Your task to perform on an android device: toggle show notifications on the lock screen Image 0: 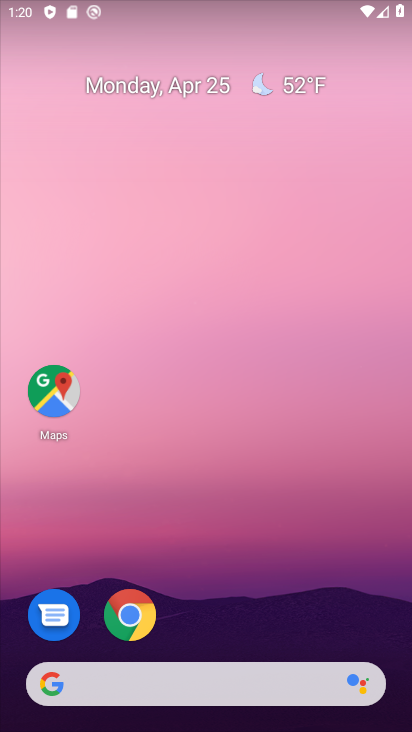
Step 0: drag from (233, 565) to (199, 38)
Your task to perform on an android device: toggle show notifications on the lock screen Image 1: 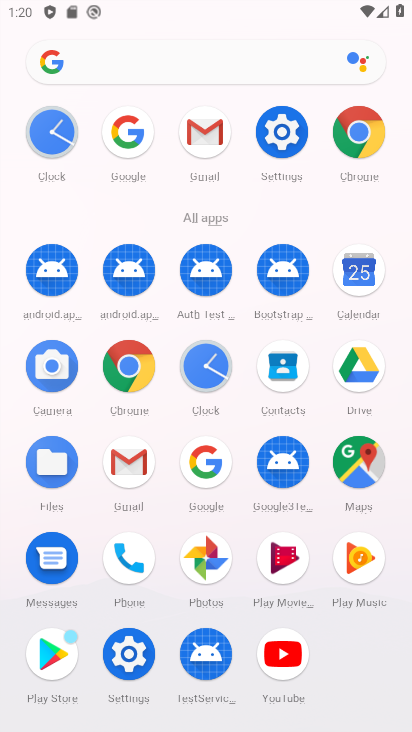
Step 1: click (281, 132)
Your task to perform on an android device: toggle show notifications on the lock screen Image 2: 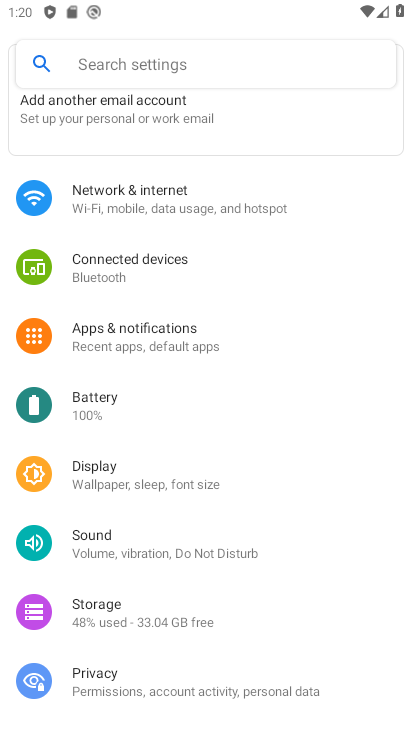
Step 2: click (144, 333)
Your task to perform on an android device: toggle show notifications on the lock screen Image 3: 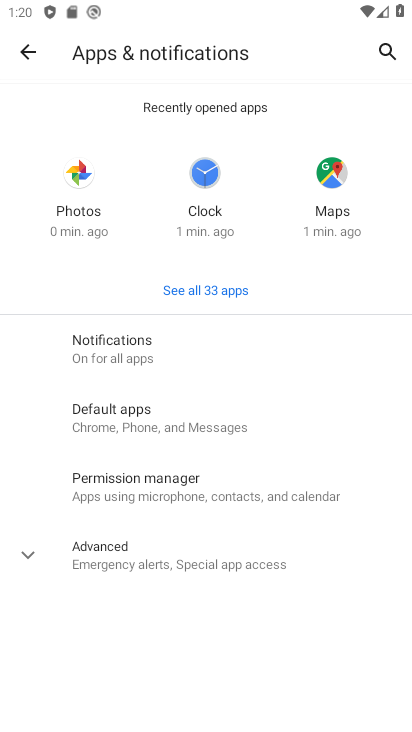
Step 3: click (130, 346)
Your task to perform on an android device: toggle show notifications on the lock screen Image 4: 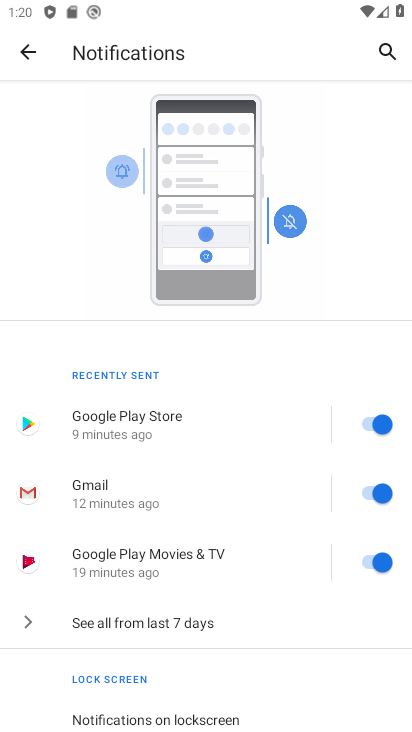
Step 4: drag from (194, 661) to (212, 486)
Your task to perform on an android device: toggle show notifications on the lock screen Image 5: 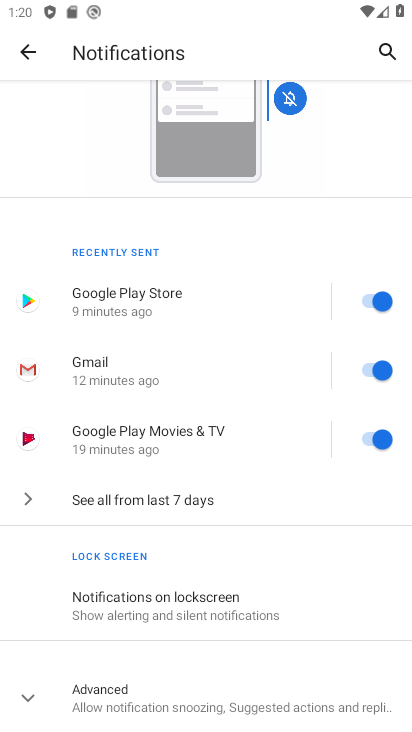
Step 5: click (154, 606)
Your task to perform on an android device: toggle show notifications on the lock screen Image 6: 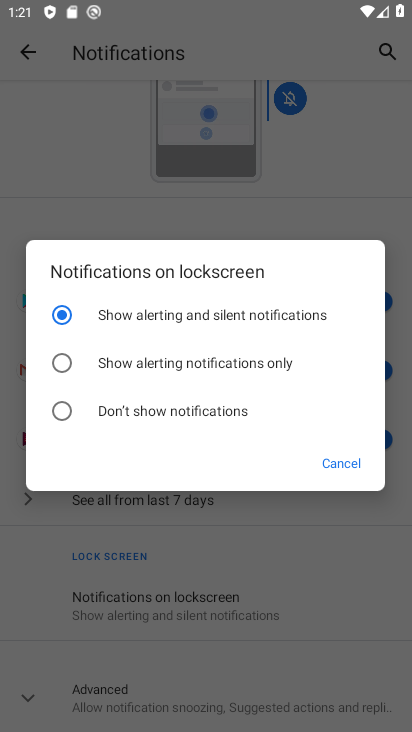
Step 6: click (57, 415)
Your task to perform on an android device: toggle show notifications on the lock screen Image 7: 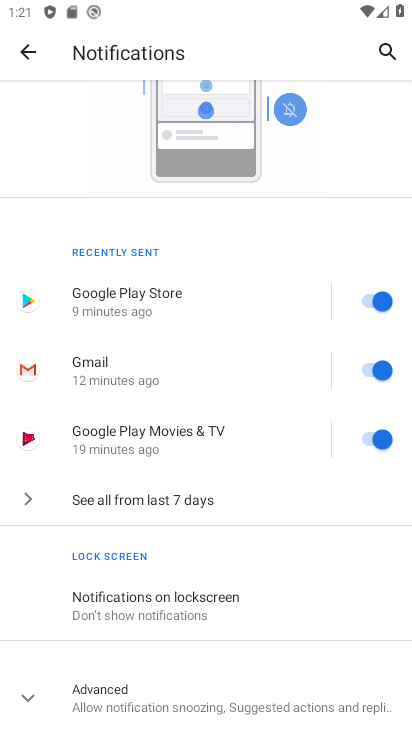
Step 7: task complete